Your task to perform on an android device: When is my next appointment? Image 0: 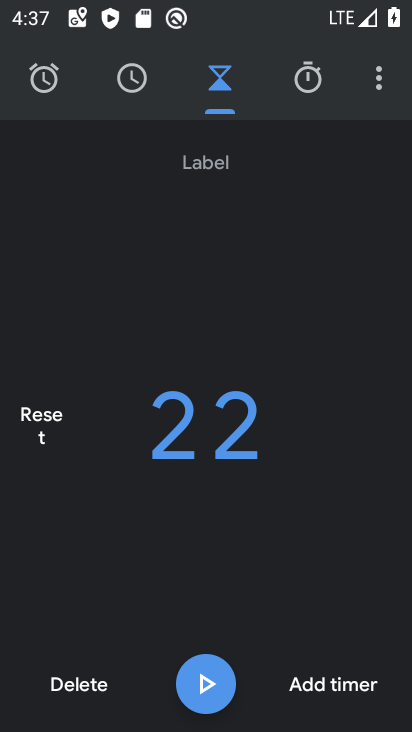
Step 0: press home button
Your task to perform on an android device: When is my next appointment? Image 1: 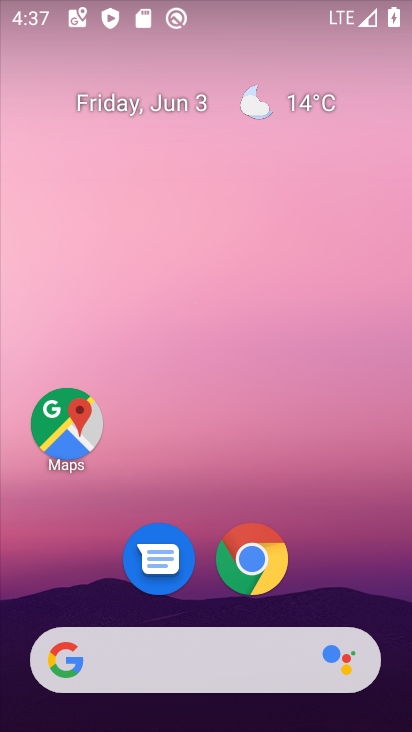
Step 1: drag from (342, 588) to (303, 346)
Your task to perform on an android device: When is my next appointment? Image 2: 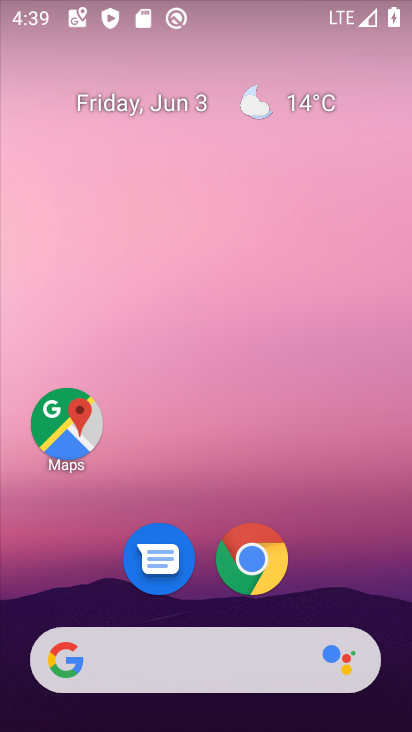
Step 2: drag from (324, 566) to (334, 100)
Your task to perform on an android device: When is my next appointment? Image 3: 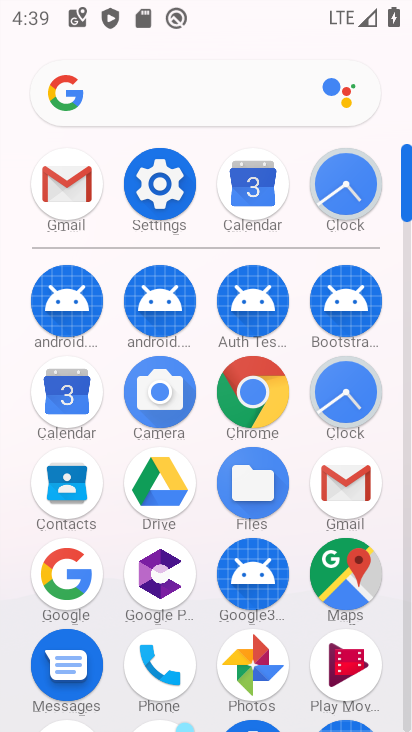
Step 3: click (245, 182)
Your task to perform on an android device: When is my next appointment? Image 4: 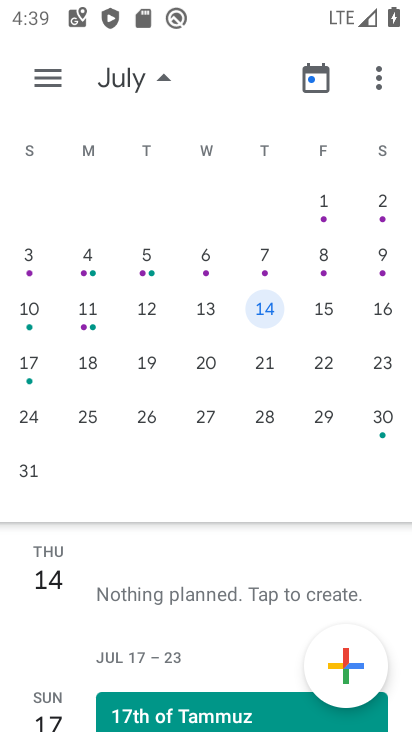
Step 4: drag from (51, 218) to (367, 233)
Your task to perform on an android device: When is my next appointment? Image 5: 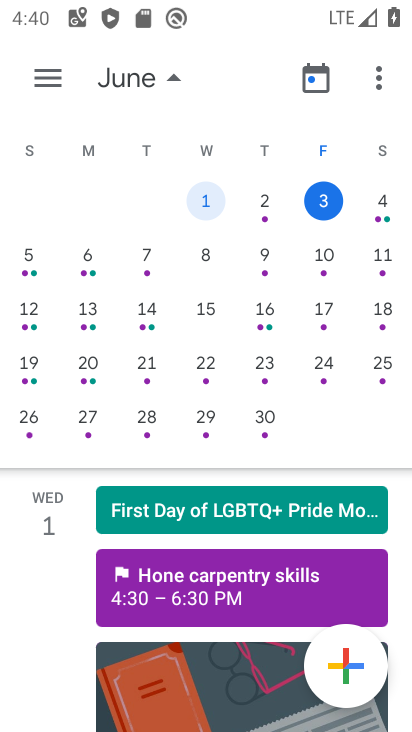
Step 5: click (333, 201)
Your task to perform on an android device: When is my next appointment? Image 6: 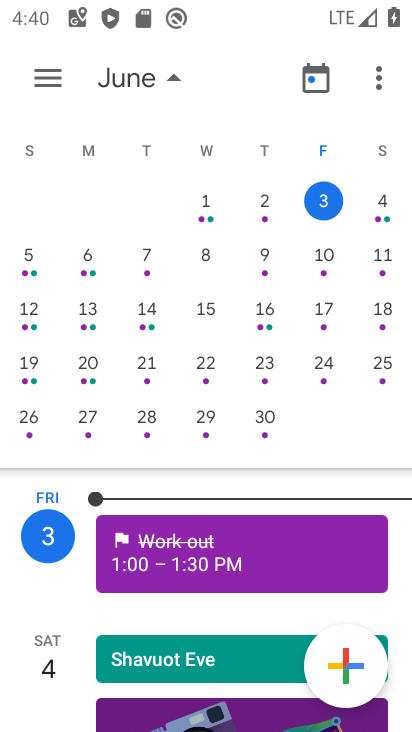
Step 6: task complete